Your task to perform on an android device: check storage Image 0: 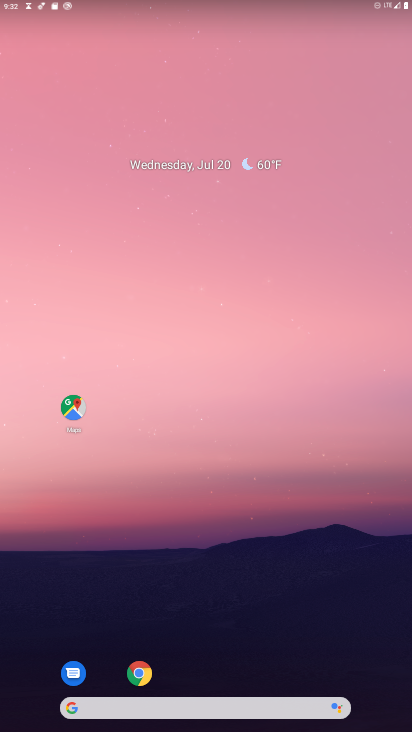
Step 0: drag from (163, 514) to (155, 71)
Your task to perform on an android device: check storage Image 1: 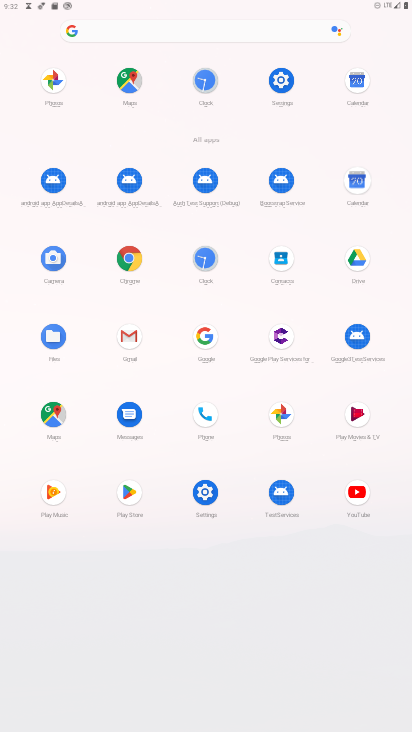
Step 1: click (285, 83)
Your task to perform on an android device: check storage Image 2: 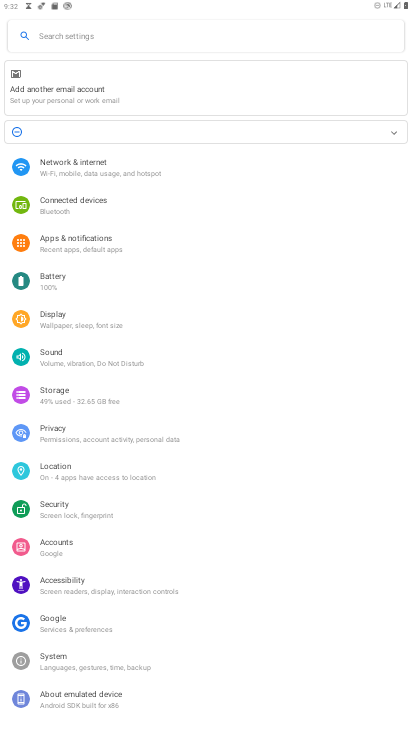
Step 2: click (58, 403)
Your task to perform on an android device: check storage Image 3: 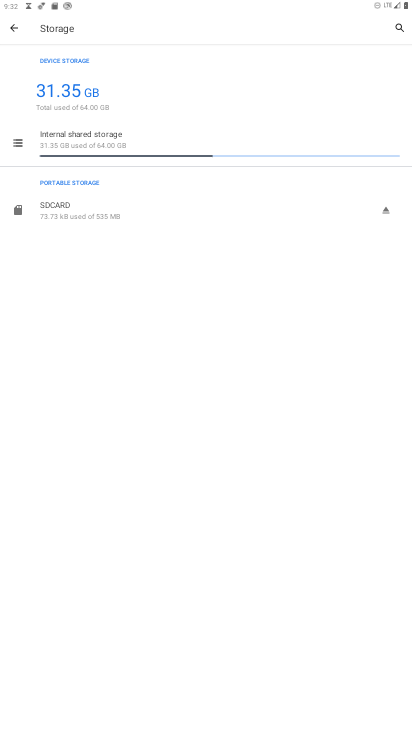
Step 3: click (58, 403)
Your task to perform on an android device: check storage Image 4: 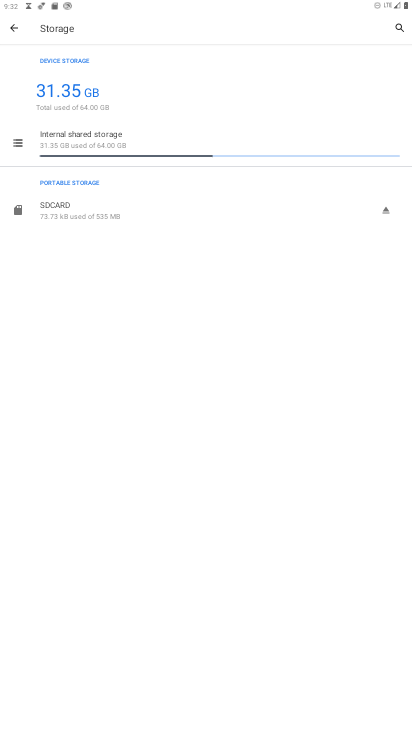
Step 4: task complete